Your task to perform on an android device: all mails in gmail Image 0: 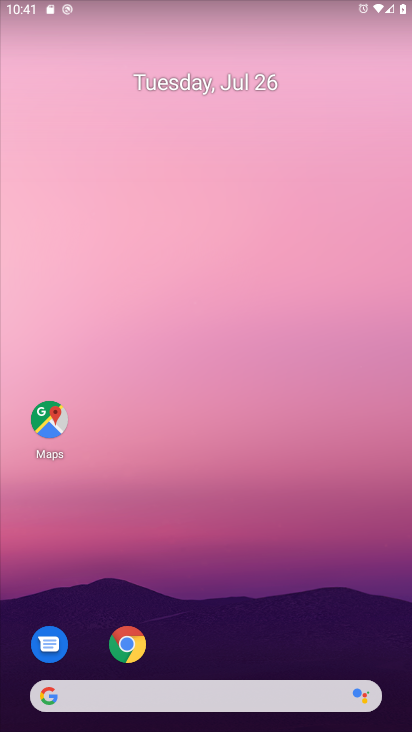
Step 0: drag from (206, 654) to (225, 188)
Your task to perform on an android device: all mails in gmail Image 1: 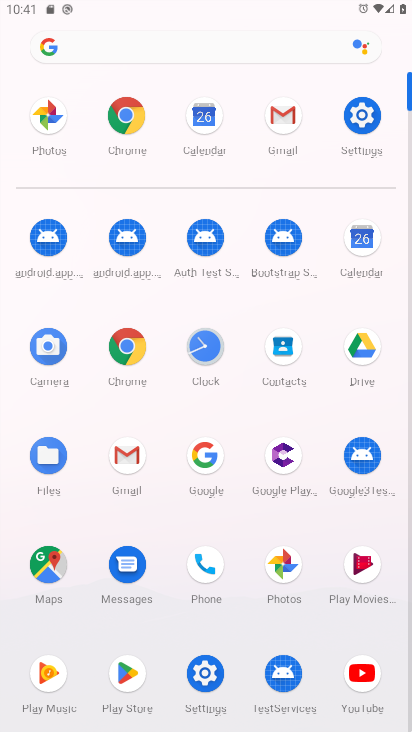
Step 1: click (127, 461)
Your task to perform on an android device: all mails in gmail Image 2: 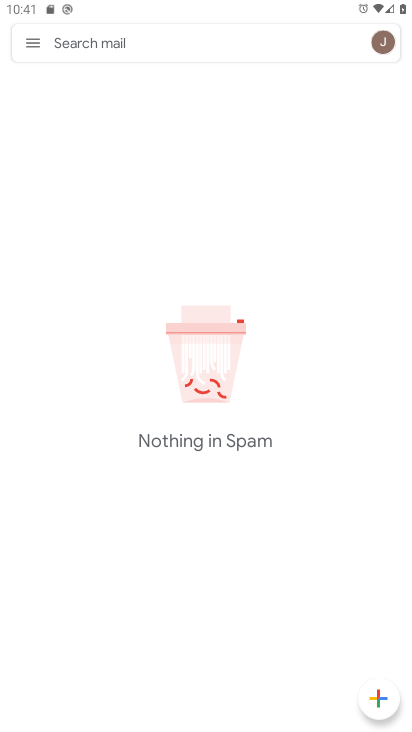
Step 2: click (28, 42)
Your task to perform on an android device: all mails in gmail Image 3: 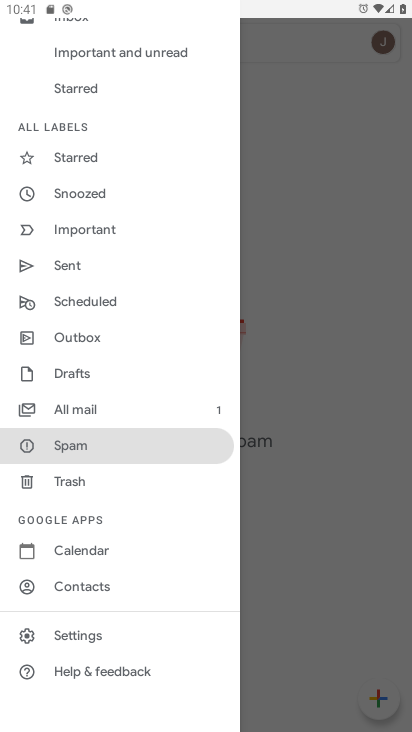
Step 3: click (95, 407)
Your task to perform on an android device: all mails in gmail Image 4: 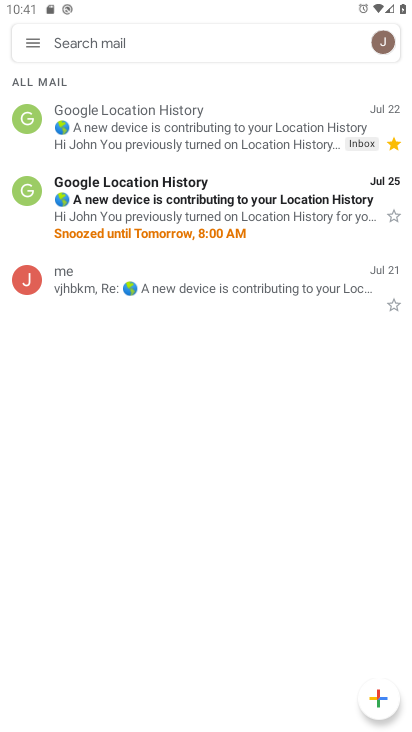
Step 4: task complete